Your task to perform on an android device: Open calendar and show me the fourth week of next month Image 0: 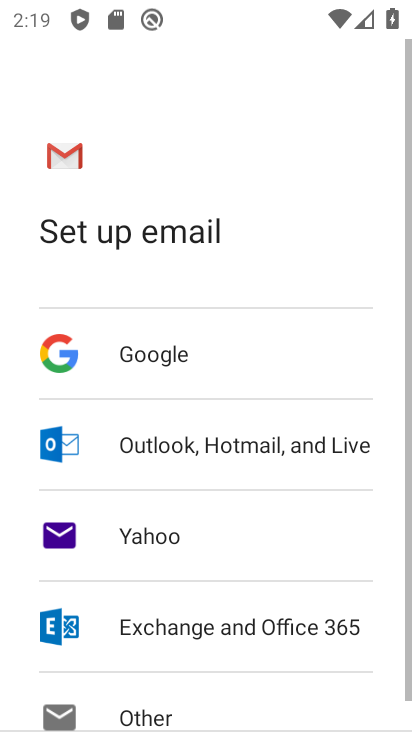
Step 0: press home button
Your task to perform on an android device: Open calendar and show me the fourth week of next month Image 1: 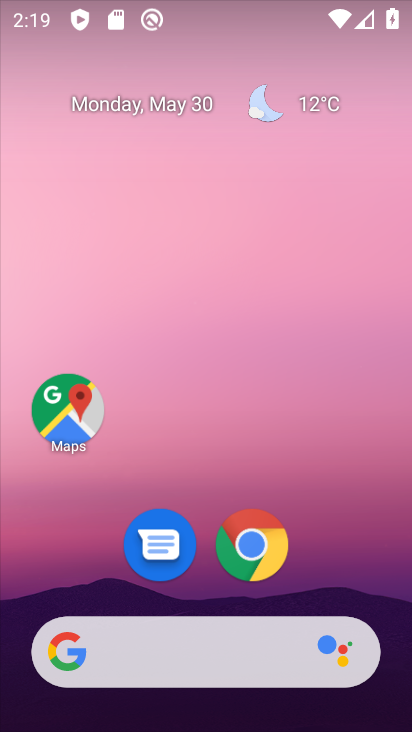
Step 1: click (111, 112)
Your task to perform on an android device: Open calendar and show me the fourth week of next month Image 2: 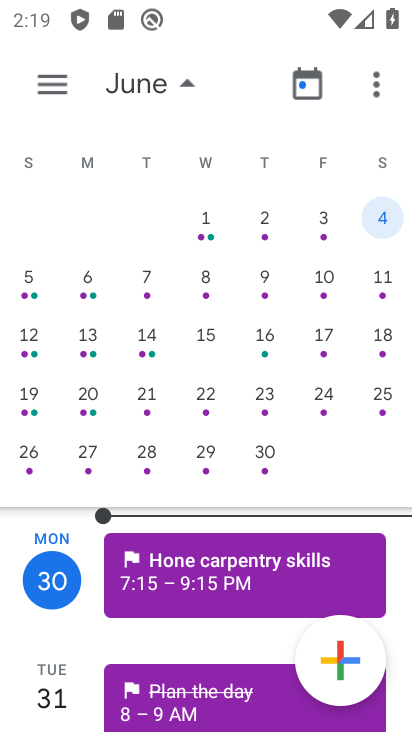
Step 2: click (123, 96)
Your task to perform on an android device: Open calendar and show me the fourth week of next month Image 3: 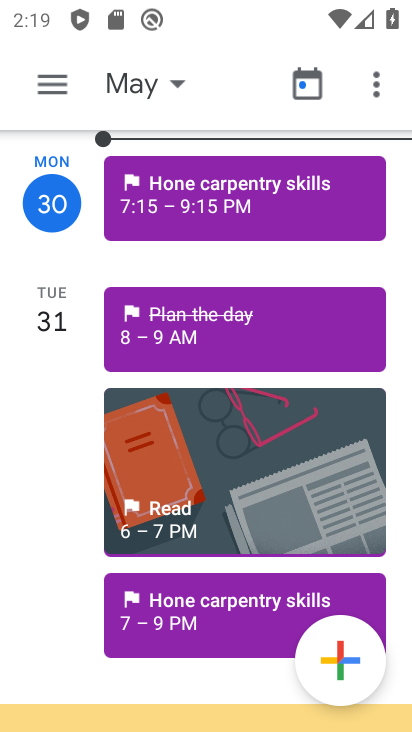
Step 3: click (163, 91)
Your task to perform on an android device: Open calendar and show me the fourth week of next month Image 4: 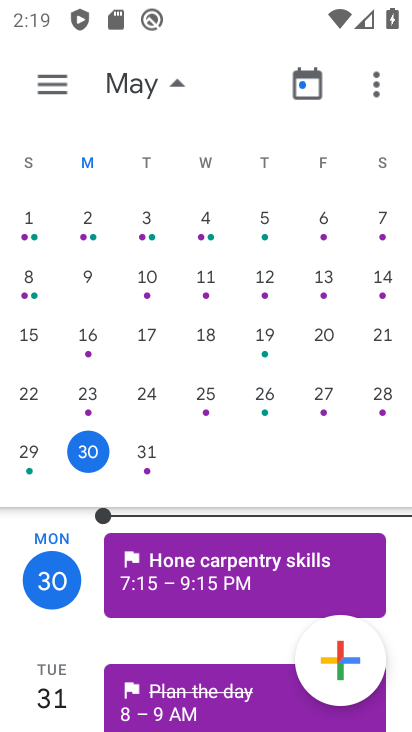
Step 4: drag from (386, 476) to (48, 461)
Your task to perform on an android device: Open calendar and show me the fourth week of next month Image 5: 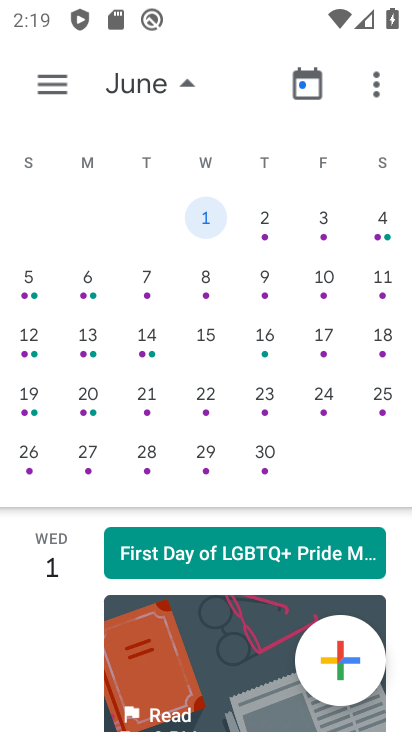
Step 5: click (290, 381)
Your task to perform on an android device: Open calendar and show me the fourth week of next month Image 6: 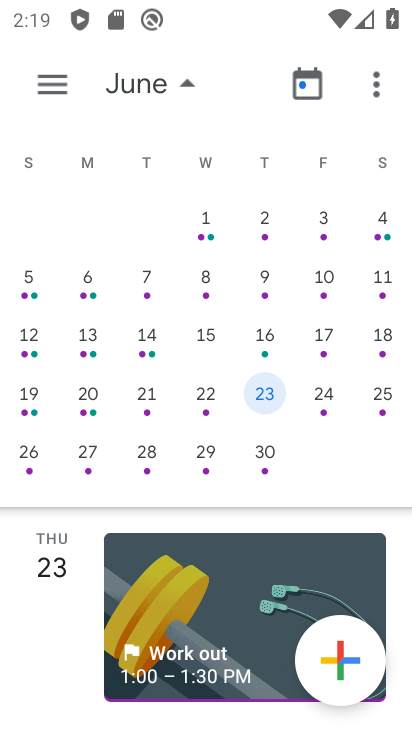
Step 6: task complete